Your task to perform on an android device: toggle wifi Image 0: 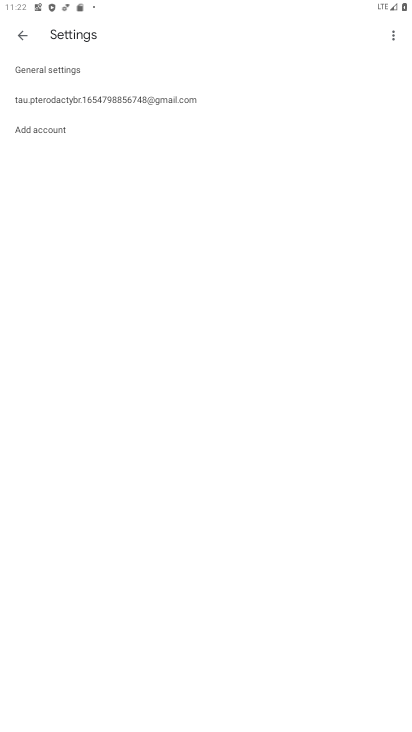
Step 0: press home button
Your task to perform on an android device: toggle wifi Image 1: 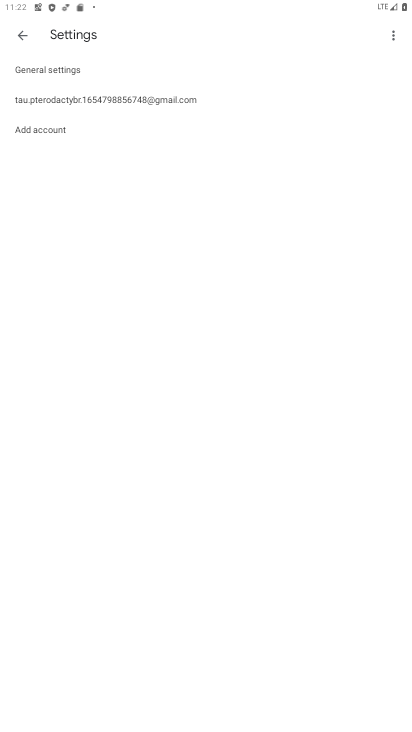
Step 1: press home button
Your task to perform on an android device: toggle wifi Image 2: 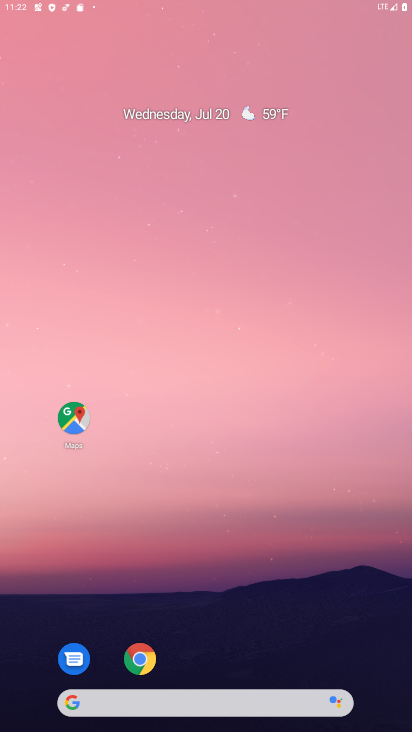
Step 2: press home button
Your task to perform on an android device: toggle wifi Image 3: 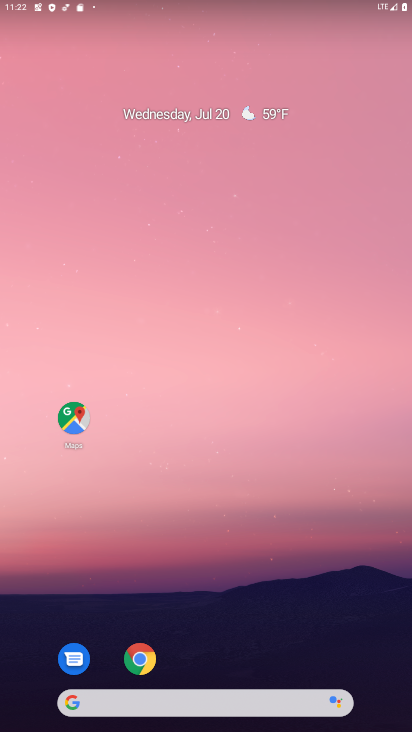
Step 3: drag from (223, 685) to (230, 209)
Your task to perform on an android device: toggle wifi Image 4: 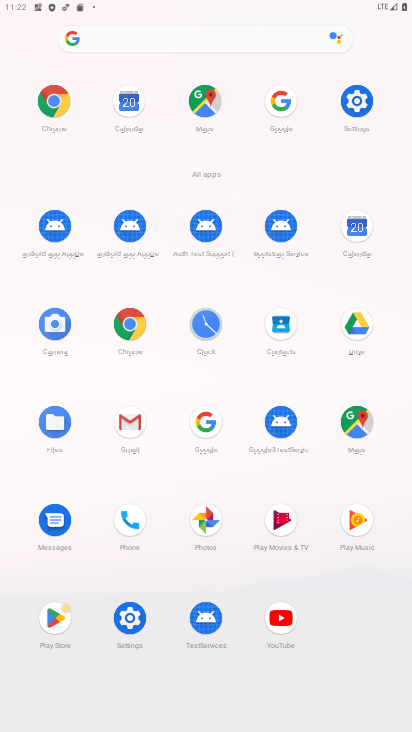
Step 4: click (349, 96)
Your task to perform on an android device: toggle wifi Image 5: 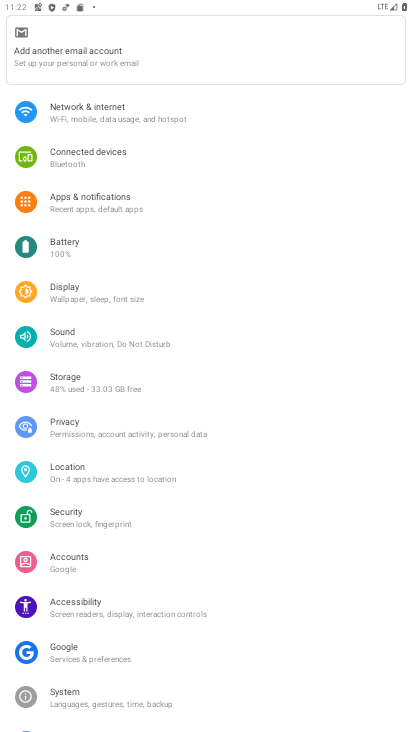
Step 5: click (68, 114)
Your task to perform on an android device: toggle wifi Image 6: 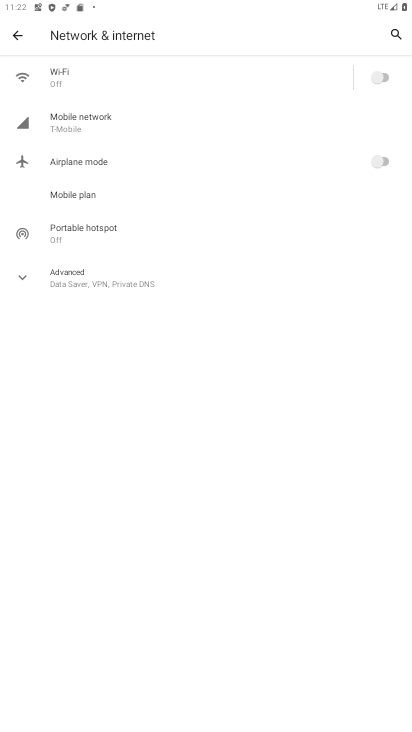
Step 6: click (380, 75)
Your task to perform on an android device: toggle wifi Image 7: 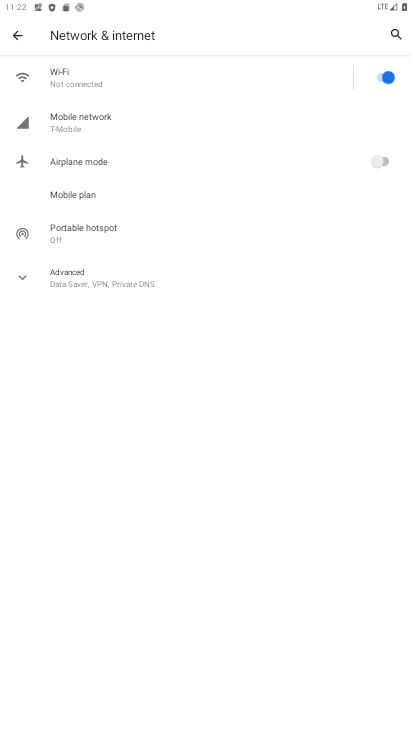
Step 7: task complete